Your task to perform on an android device: Open Maps and search for coffee Image 0: 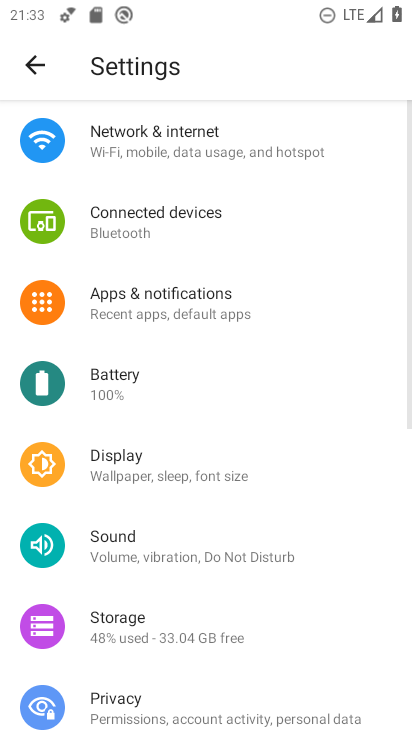
Step 0: press home button
Your task to perform on an android device: Open Maps and search for coffee Image 1: 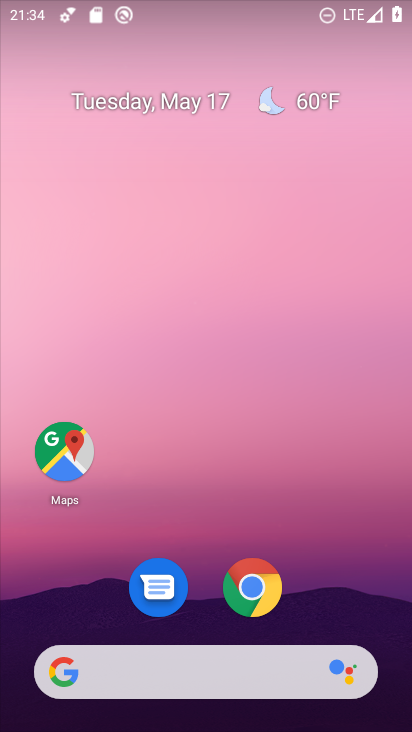
Step 1: drag from (323, 508) to (216, 130)
Your task to perform on an android device: Open Maps and search for coffee Image 2: 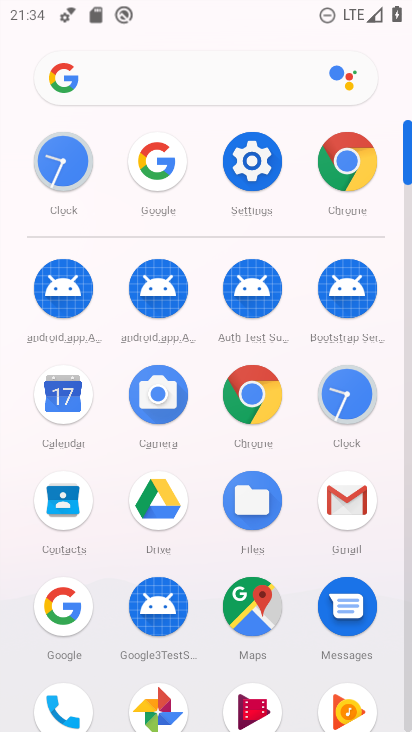
Step 2: click (261, 595)
Your task to perform on an android device: Open Maps and search for coffee Image 3: 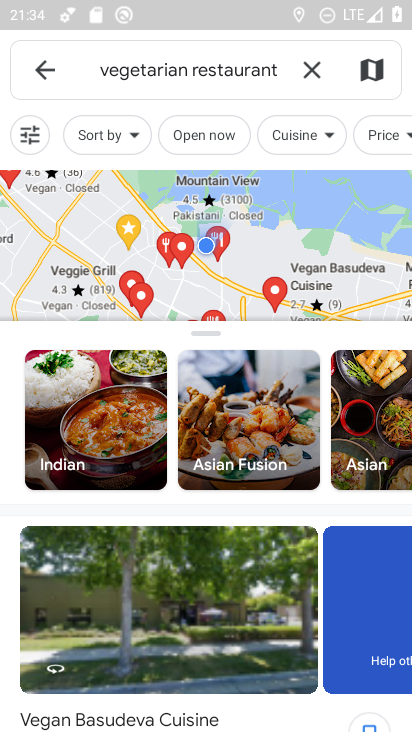
Step 3: click (306, 73)
Your task to perform on an android device: Open Maps and search for coffee Image 4: 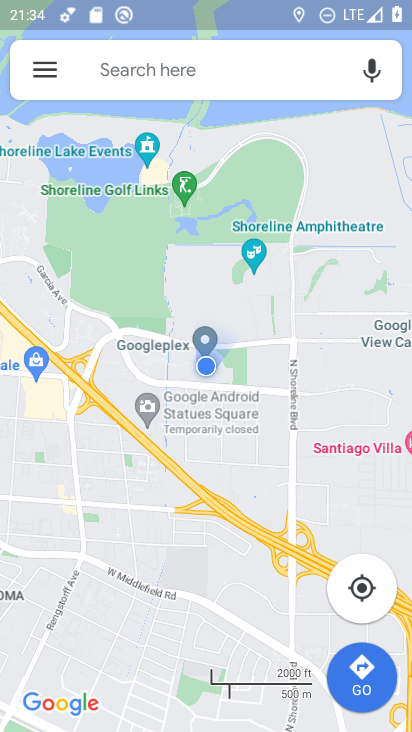
Step 4: click (134, 90)
Your task to perform on an android device: Open Maps and search for coffee Image 5: 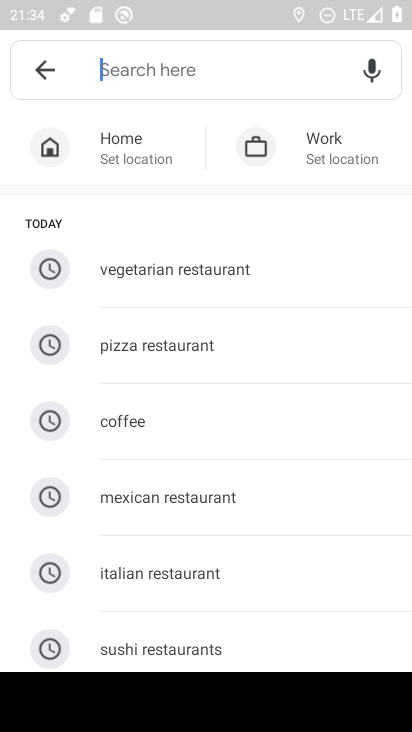
Step 5: click (205, 427)
Your task to perform on an android device: Open Maps and search for coffee Image 6: 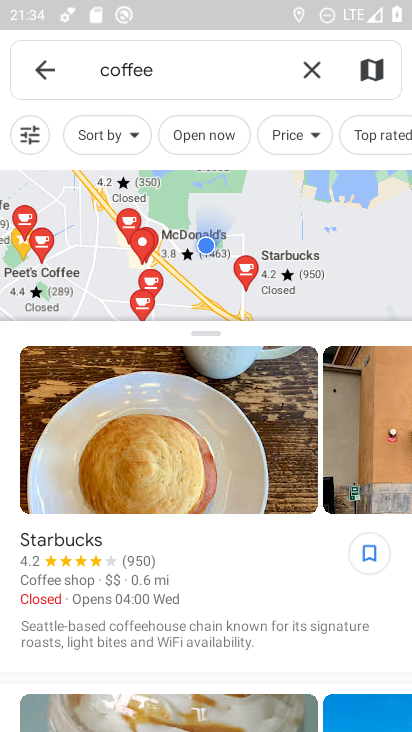
Step 6: task complete